Your task to perform on an android device: toggle translation in the chrome app Image 0: 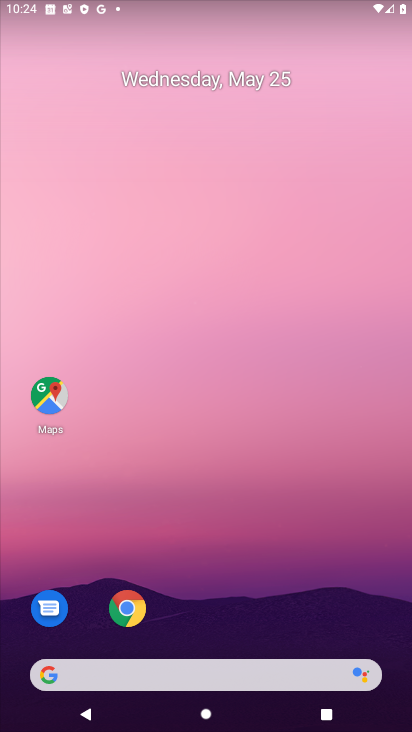
Step 0: click (126, 610)
Your task to perform on an android device: toggle translation in the chrome app Image 1: 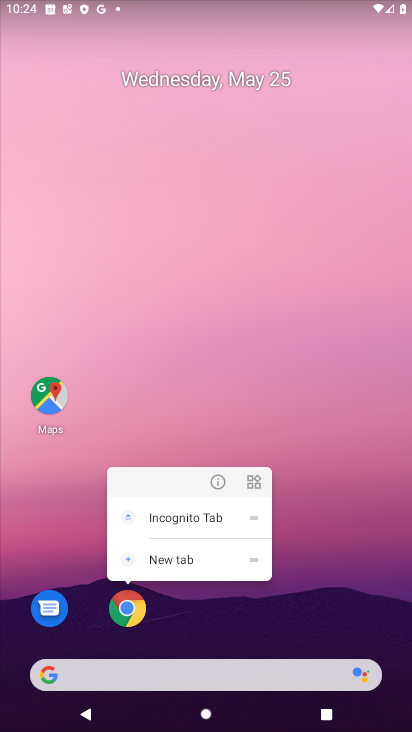
Step 1: click (126, 610)
Your task to perform on an android device: toggle translation in the chrome app Image 2: 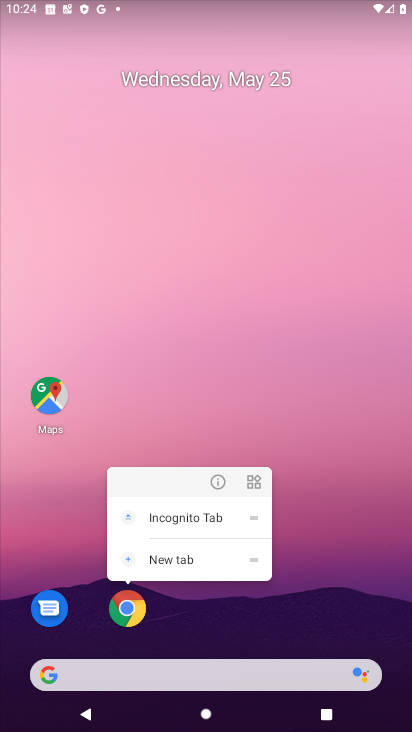
Step 2: click (126, 610)
Your task to perform on an android device: toggle translation in the chrome app Image 3: 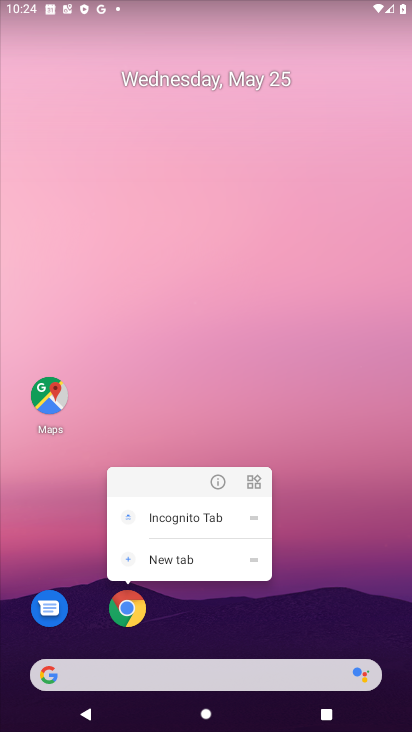
Step 3: click (126, 610)
Your task to perform on an android device: toggle translation in the chrome app Image 4: 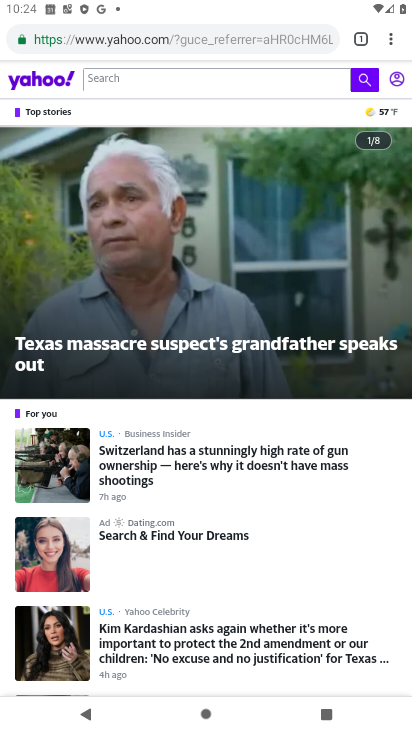
Step 4: click (392, 35)
Your task to perform on an android device: toggle translation in the chrome app Image 5: 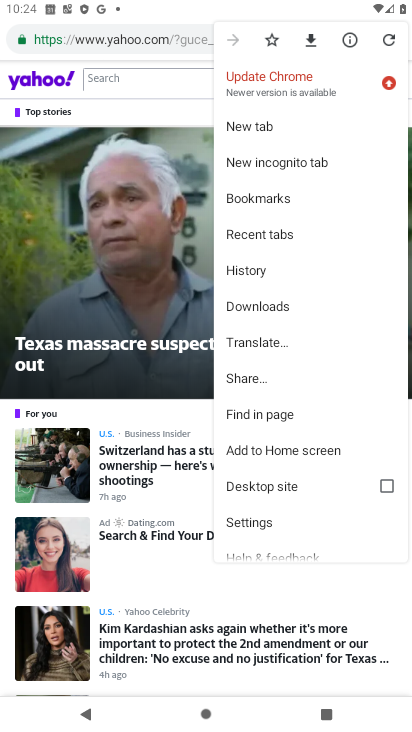
Step 5: click (249, 519)
Your task to perform on an android device: toggle translation in the chrome app Image 6: 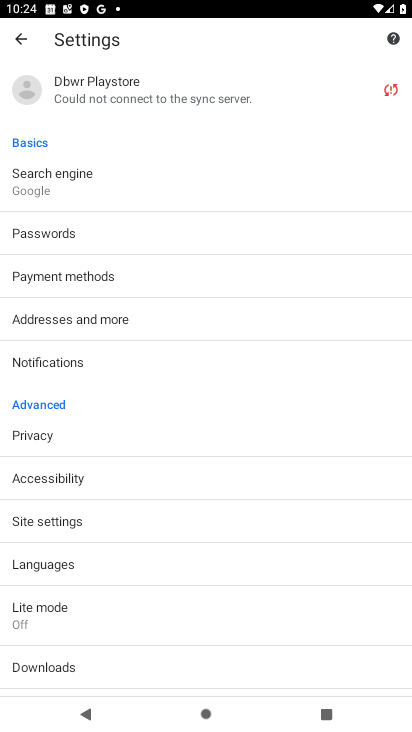
Step 6: click (28, 566)
Your task to perform on an android device: toggle translation in the chrome app Image 7: 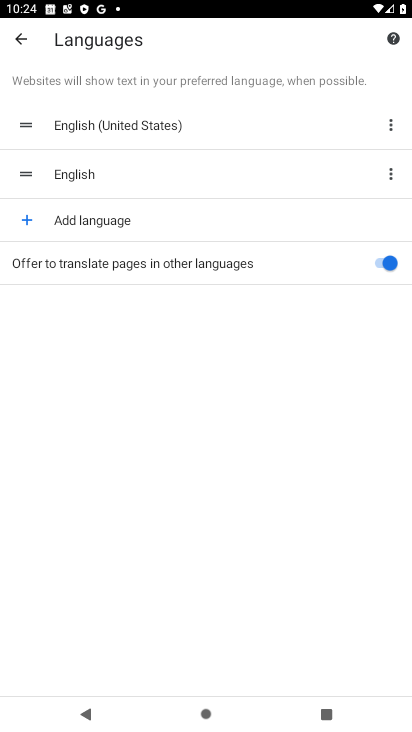
Step 7: click (386, 266)
Your task to perform on an android device: toggle translation in the chrome app Image 8: 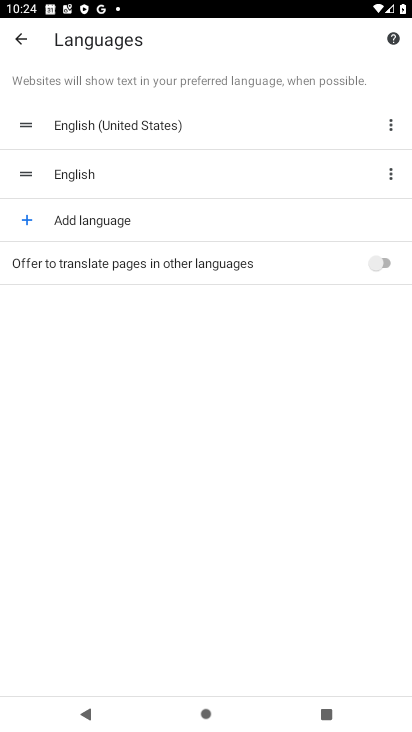
Step 8: task complete